Your task to perform on an android device: turn notification dots off Image 0: 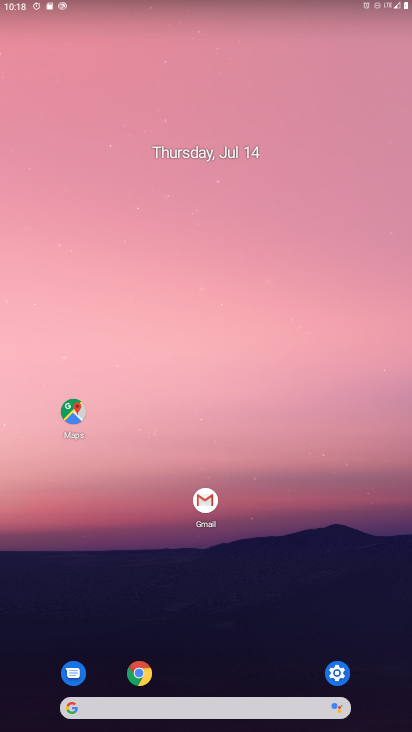
Step 0: drag from (285, 714) to (198, 236)
Your task to perform on an android device: turn notification dots off Image 1: 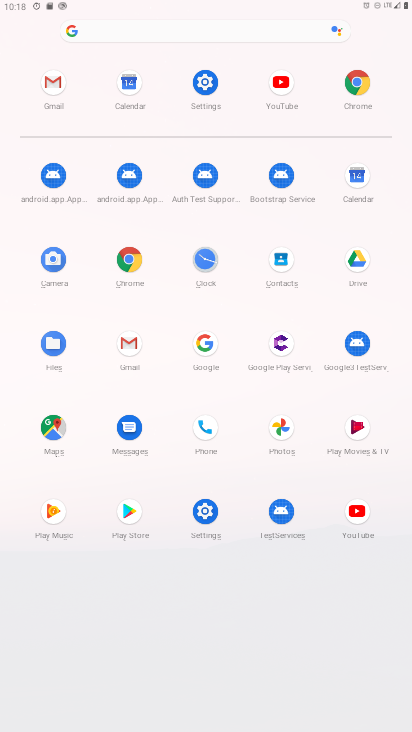
Step 1: click (207, 88)
Your task to perform on an android device: turn notification dots off Image 2: 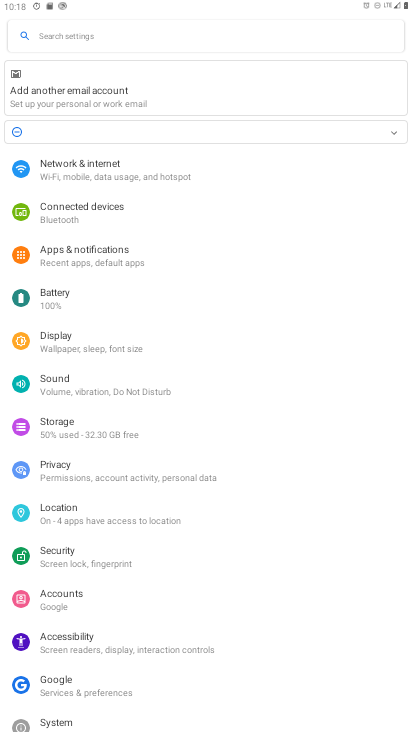
Step 2: click (130, 40)
Your task to perform on an android device: turn notification dots off Image 3: 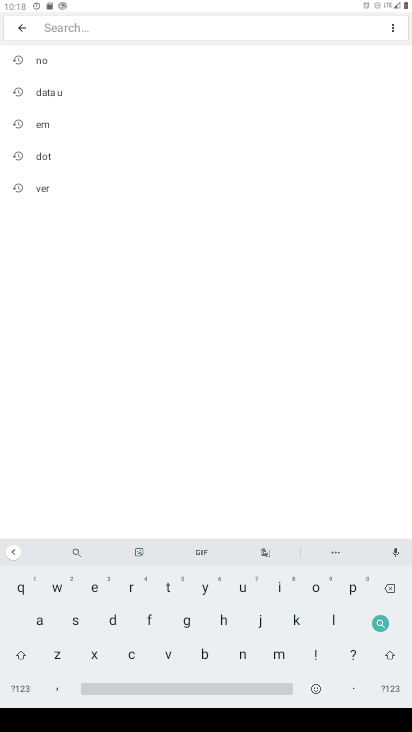
Step 3: click (73, 65)
Your task to perform on an android device: turn notification dots off Image 4: 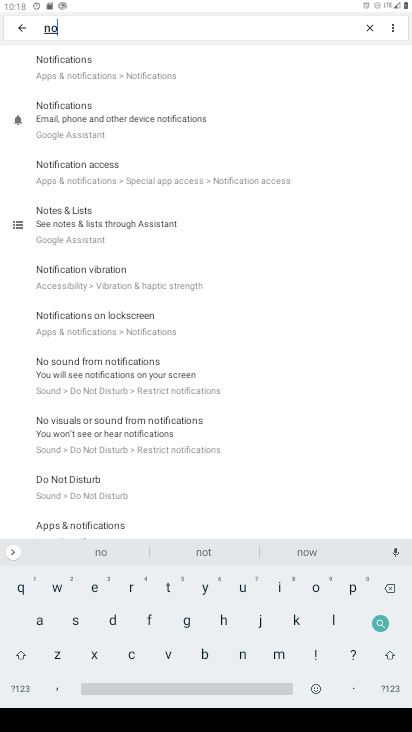
Step 4: click (105, 80)
Your task to perform on an android device: turn notification dots off Image 5: 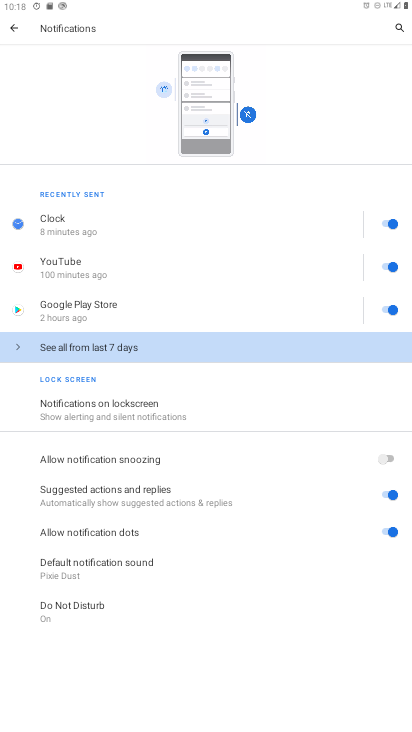
Step 5: click (373, 529)
Your task to perform on an android device: turn notification dots off Image 6: 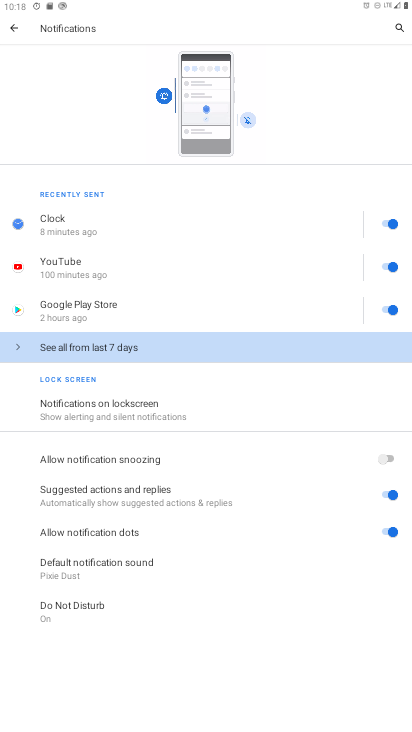
Step 6: click (391, 528)
Your task to perform on an android device: turn notification dots off Image 7: 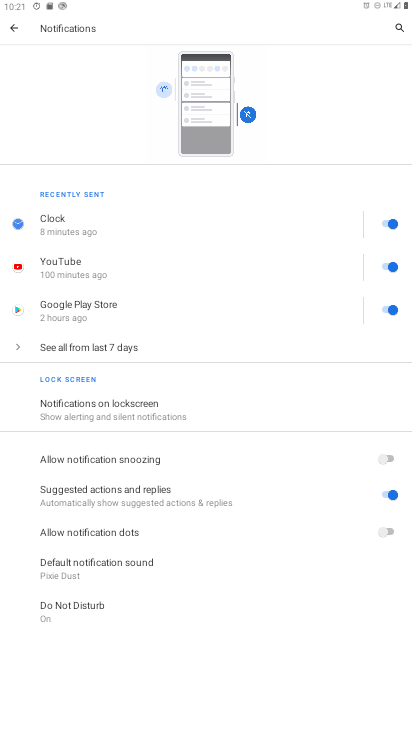
Step 7: task complete